Your task to perform on an android device: open app "LinkedIn" Image 0: 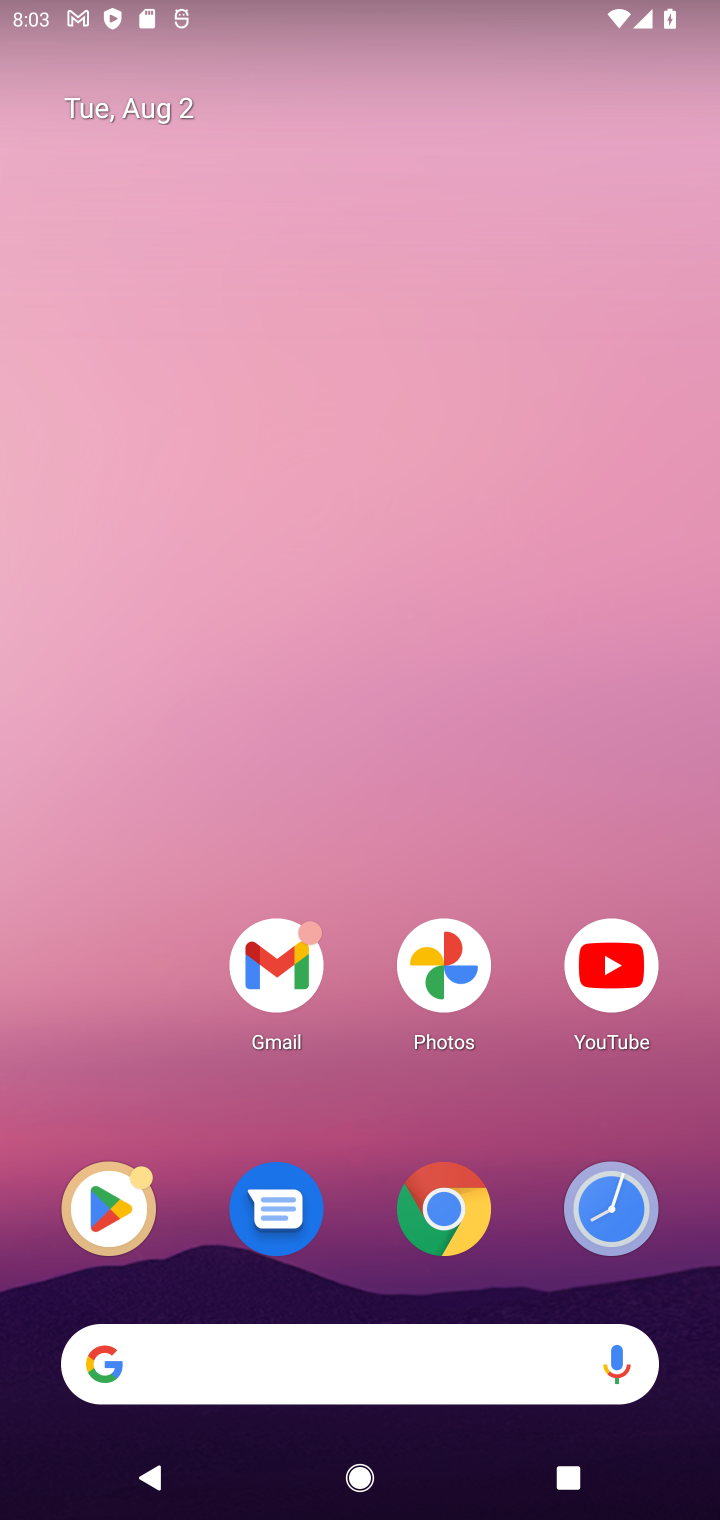
Step 0: drag from (314, 1310) to (652, 877)
Your task to perform on an android device: open app "LinkedIn" Image 1: 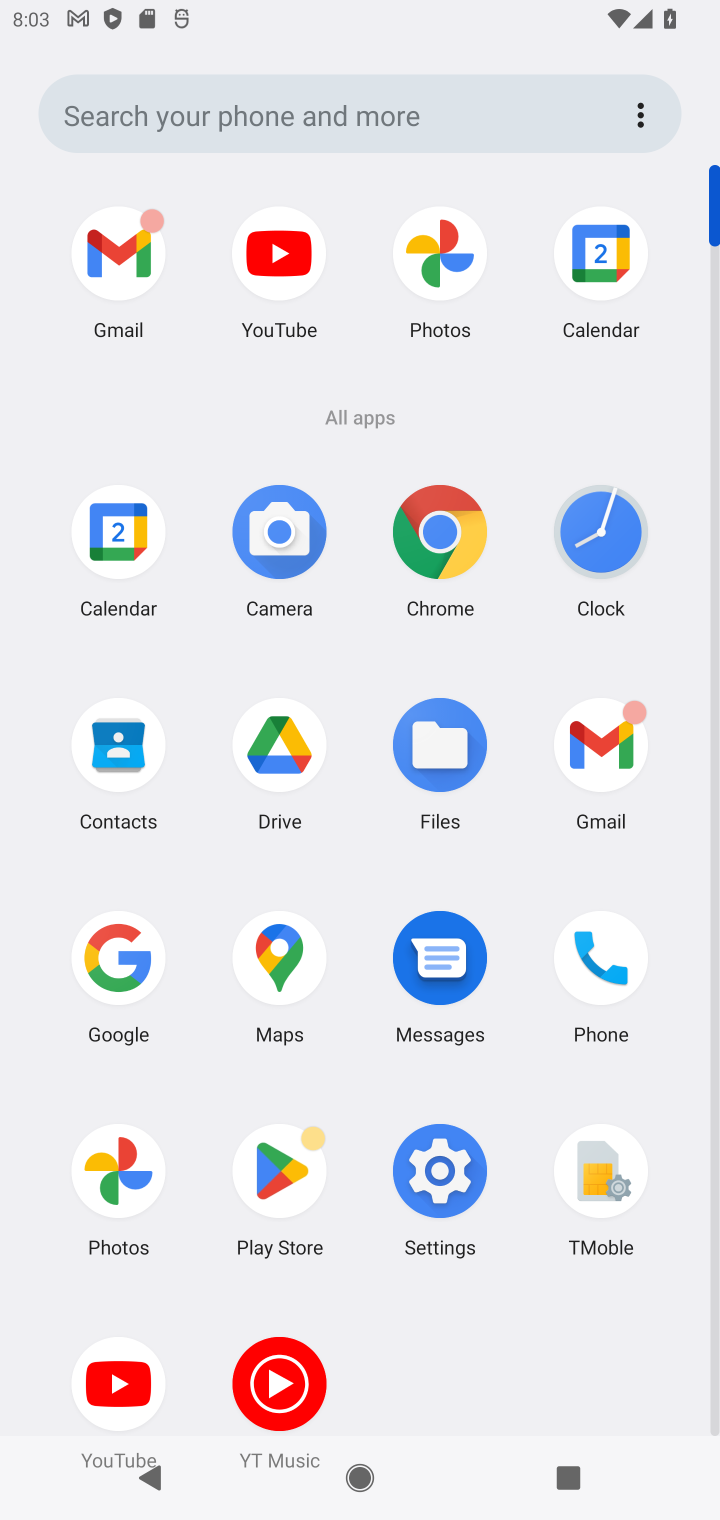
Step 1: click (252, 1243)
Your task to perform on an android device: open app "LinkedIn" Image 2: 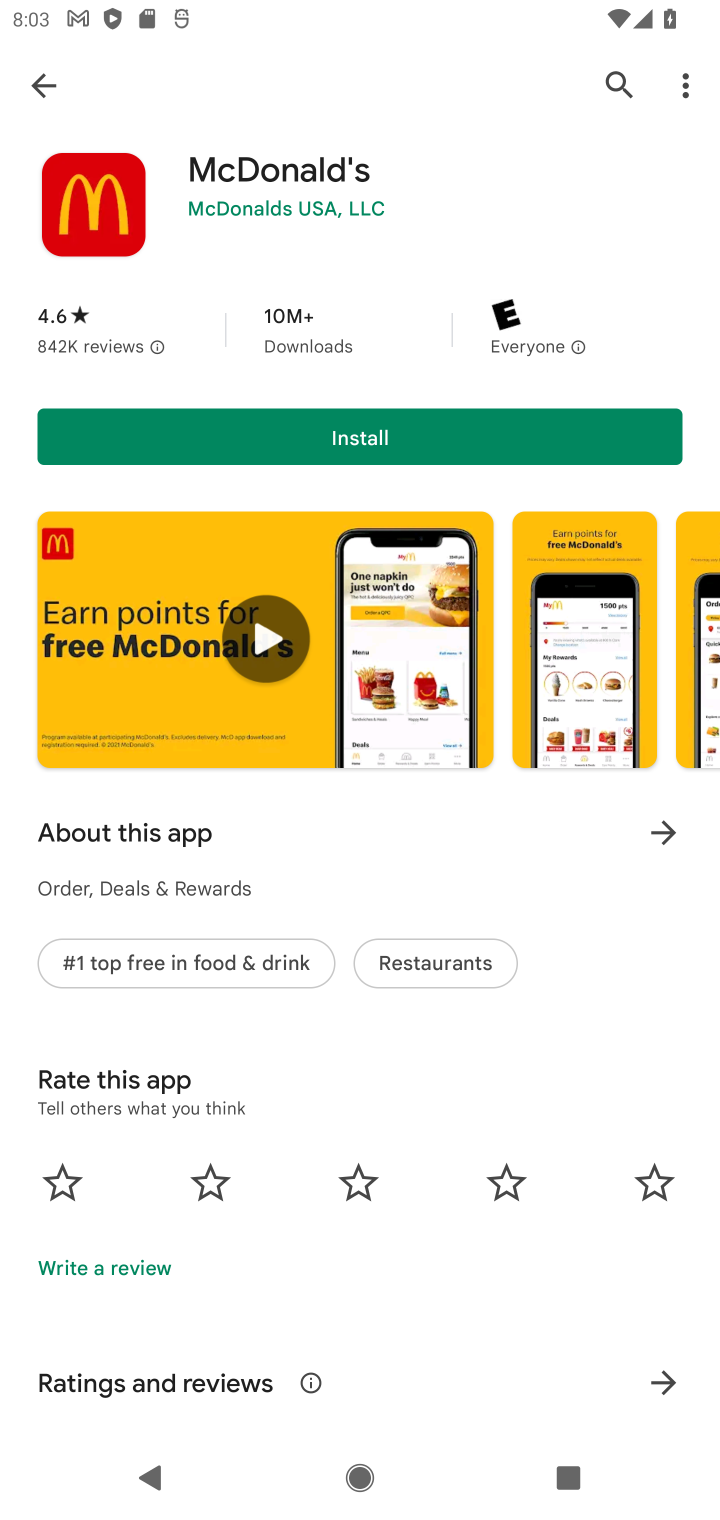
Step 2: click (626, 90)
Your task to perform on an android device: open app "LinkedIn" Image 3: 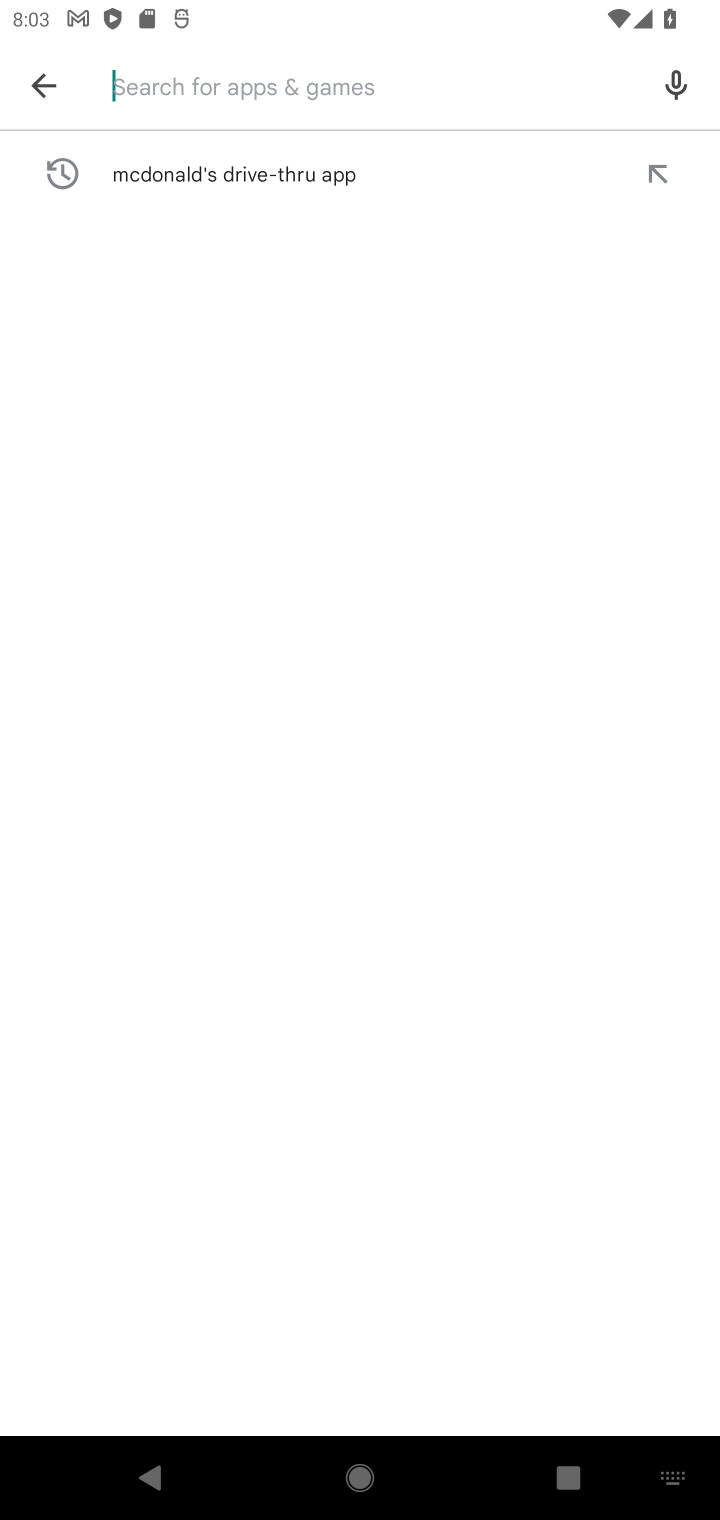
Step 3: drag from (431, 1517) to (530, 1514)
Your task to perform on an android device: open app "LinkedIn" Image 4: 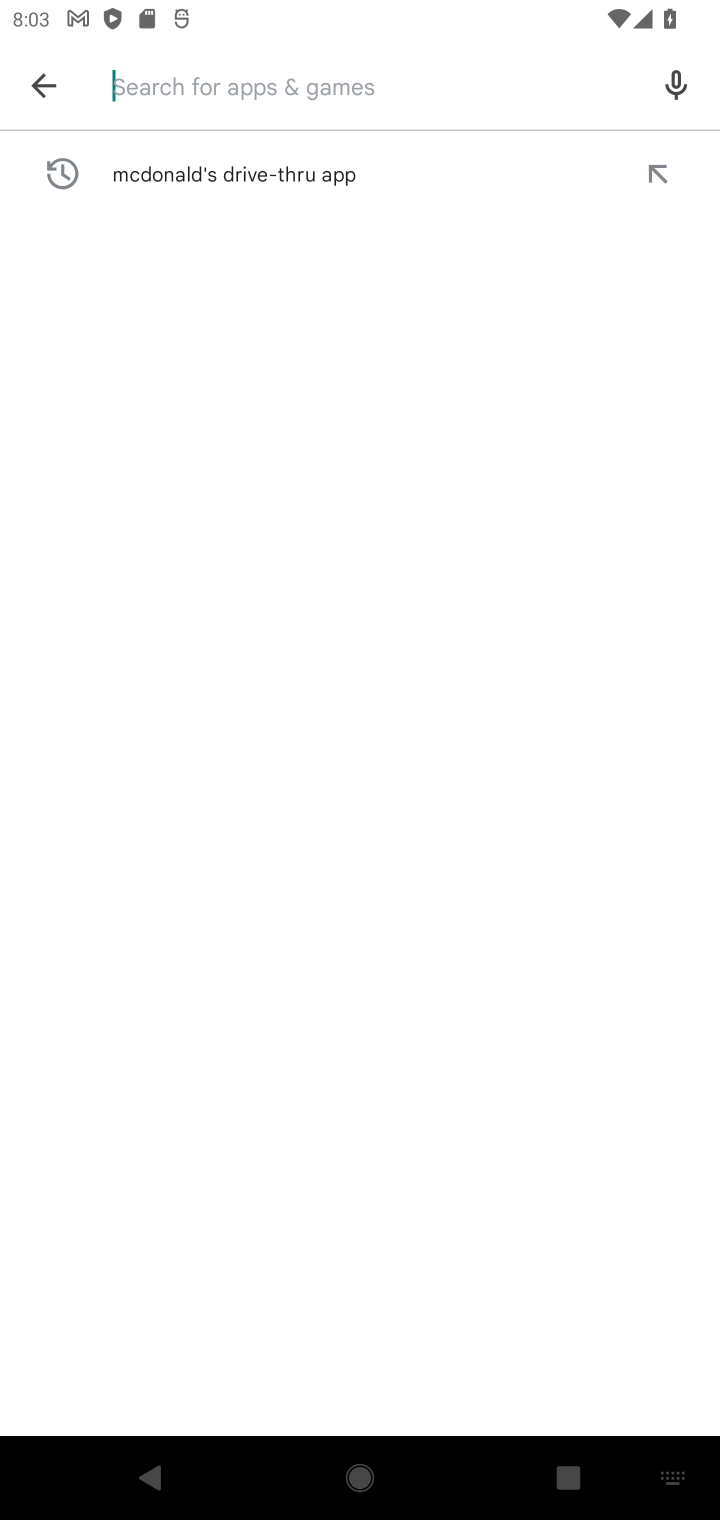
Step 4: type "LinkedIn"
Your task to perform on an android device: open app "LinkedIn" Image 5: 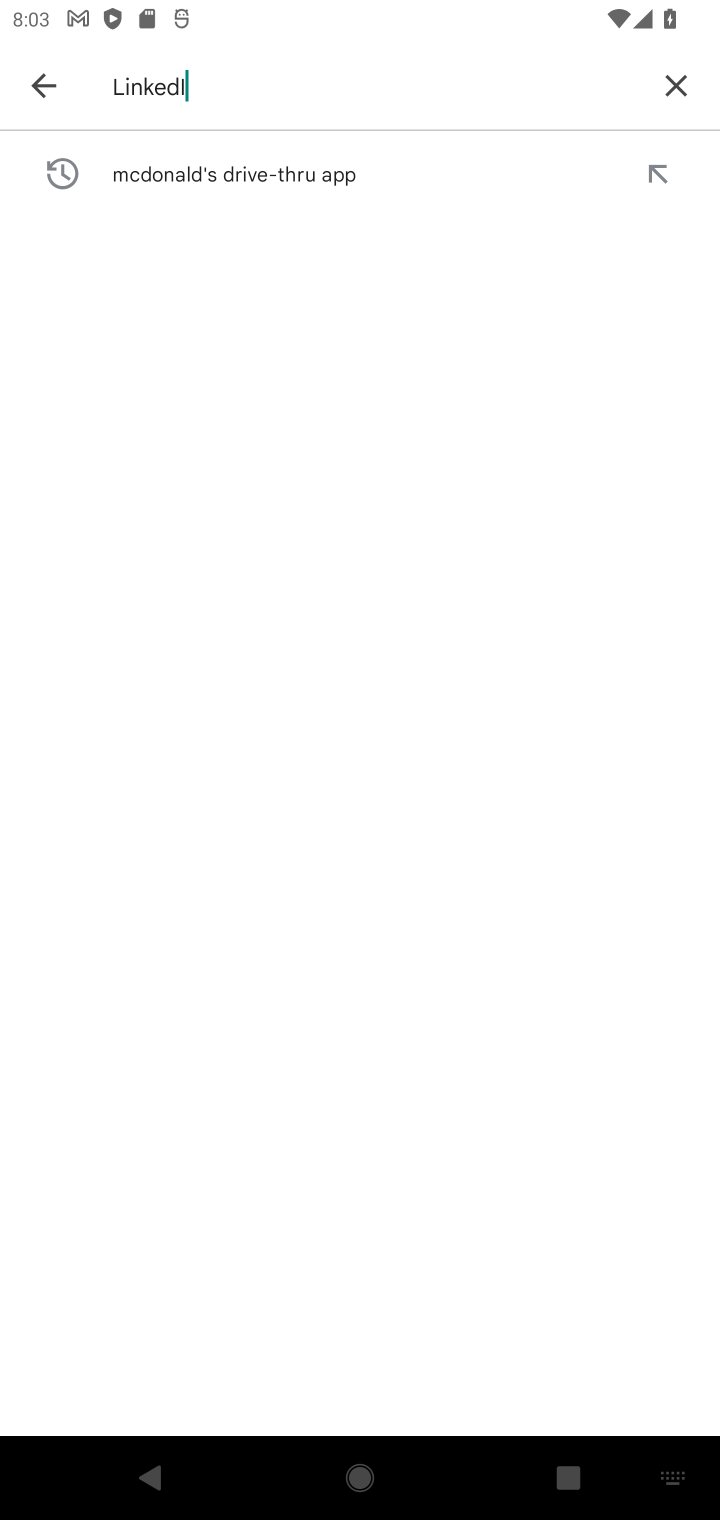
Step 5: type ""
Your task to perform on an android device: open app "LinkedIn" Image 6: 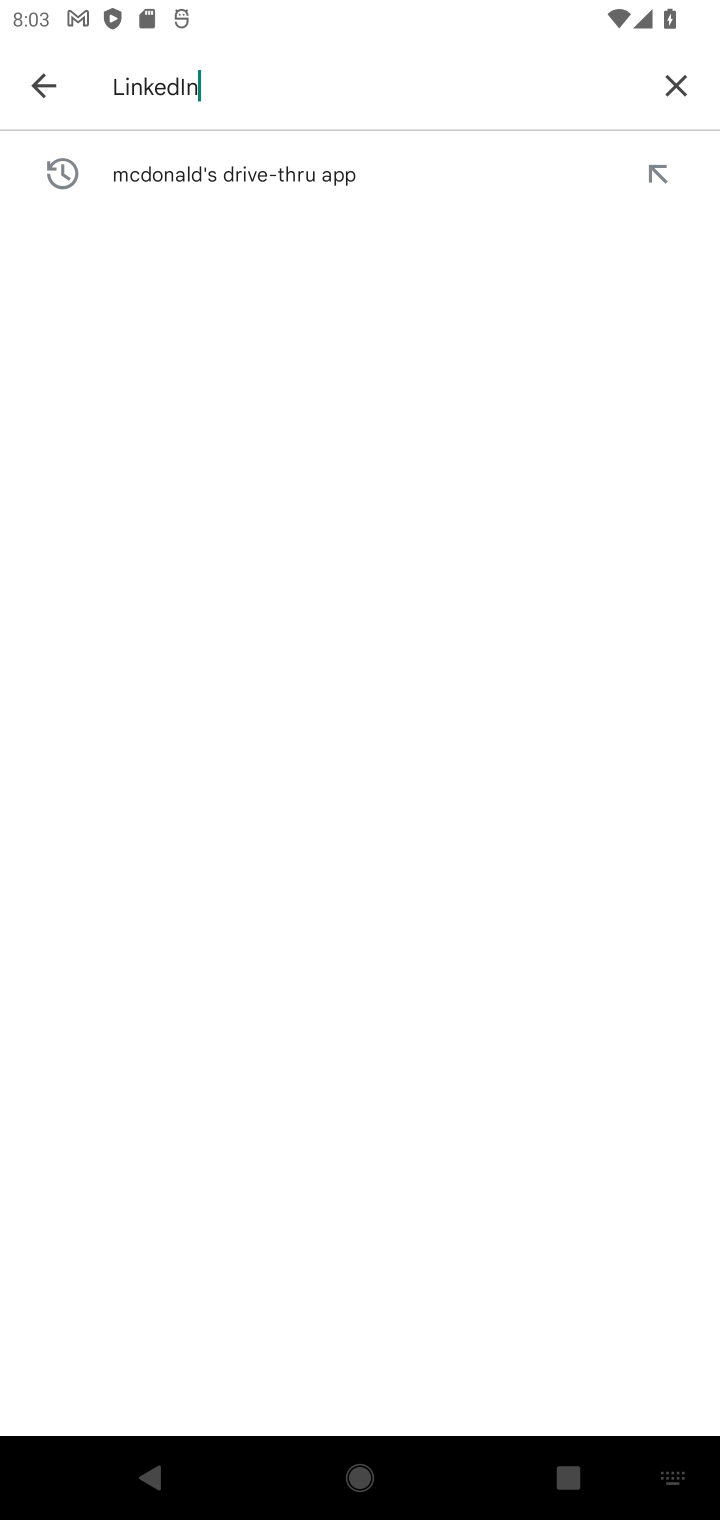
Step 6: drag from (530, 1514) to (628, 163)
Your task to perform on an android device: open app "LinkedIn" Image 7: 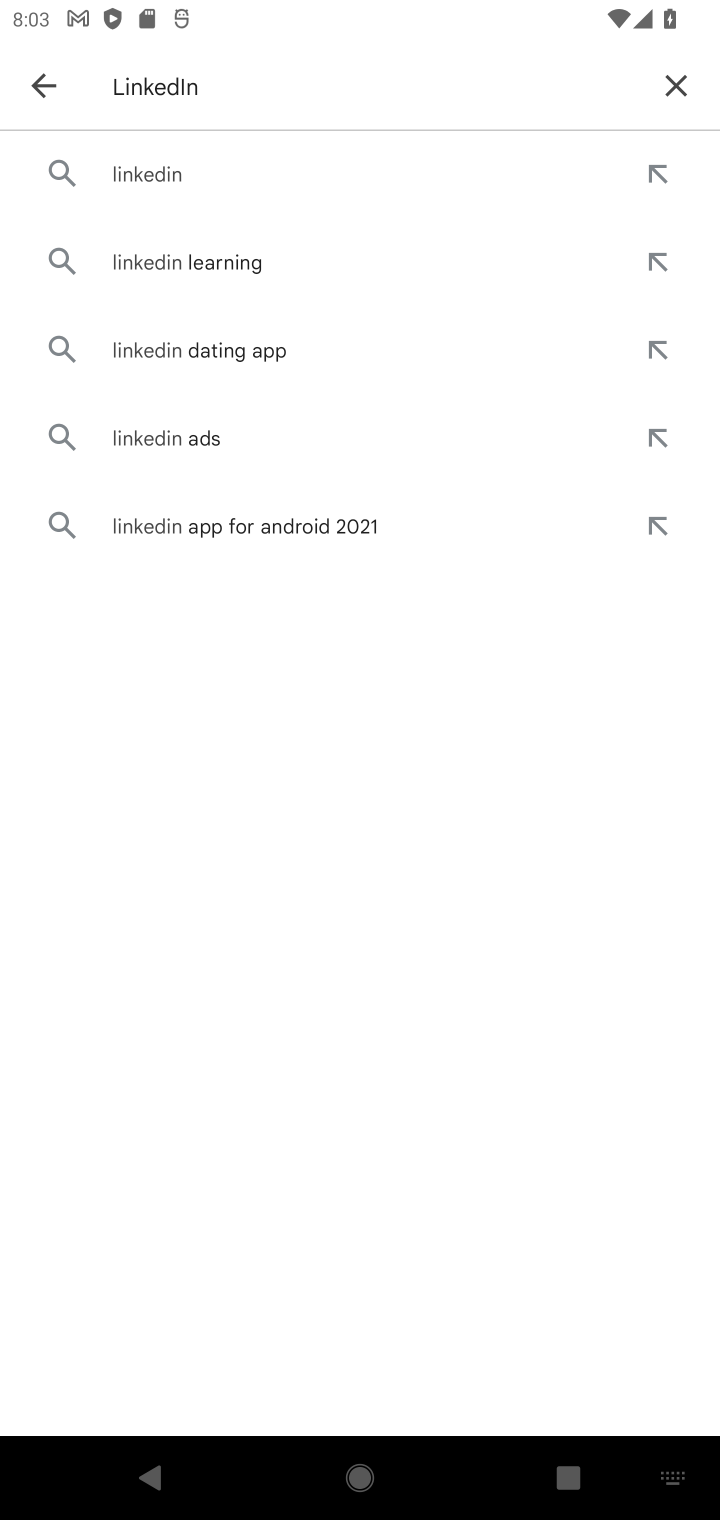
Step 7: click (171, 152)
Your task to perform on an android device: open app "LinkedIn" Image 8: 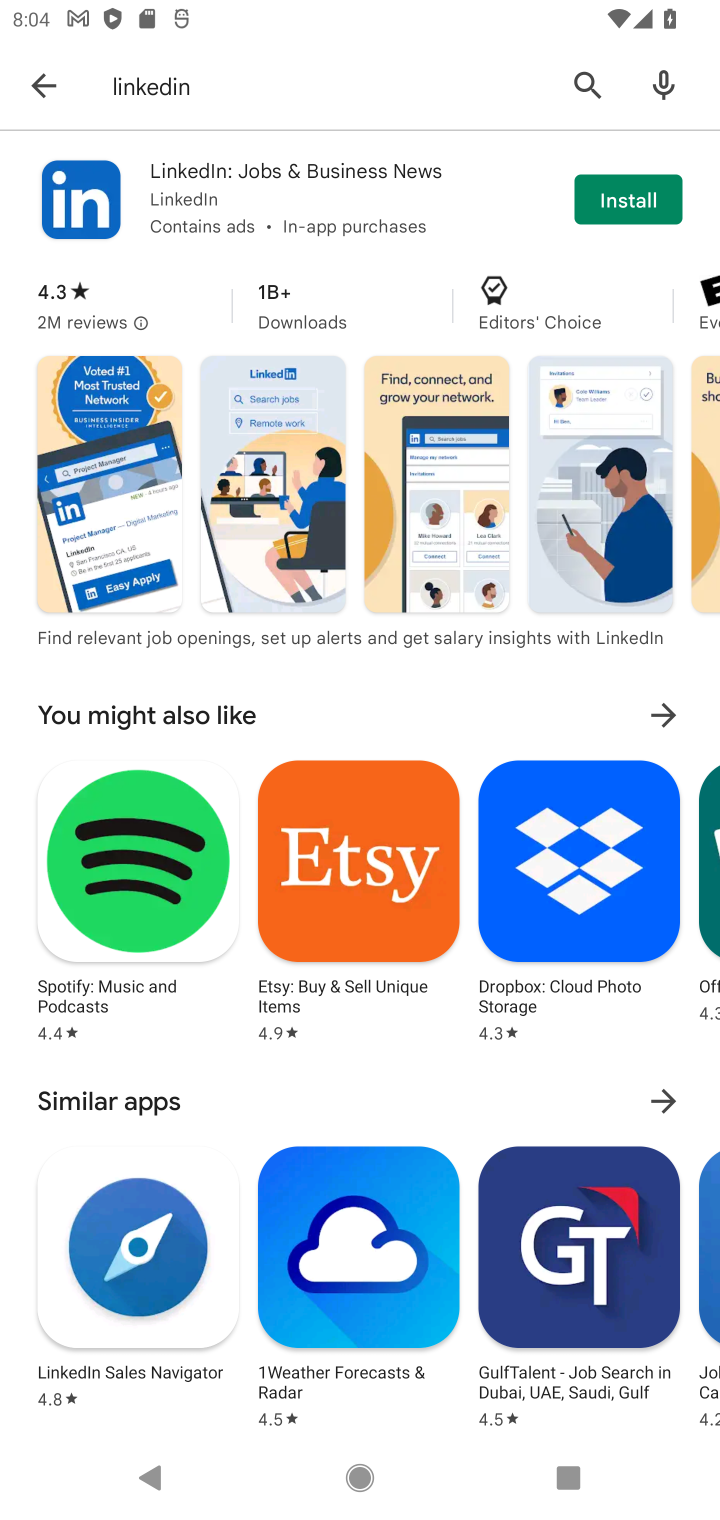
Step 8: task complete